Your task to perform on an android device: turn off notifications settings in the gmail app Image 0: 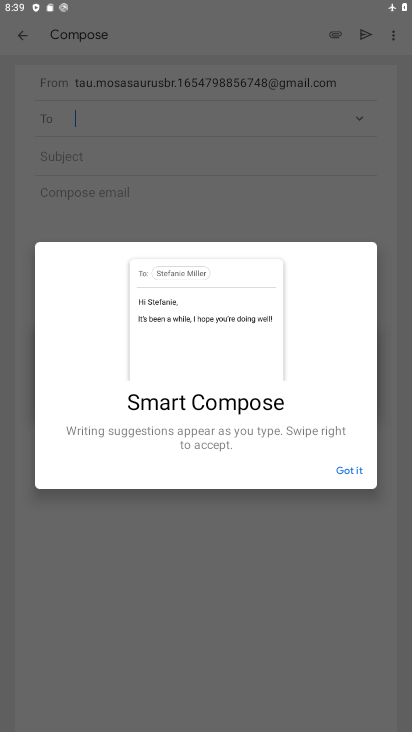
Step 0: press home button
Your task to perform on an android device: turn off notifications settings in the gmail app Image 1: 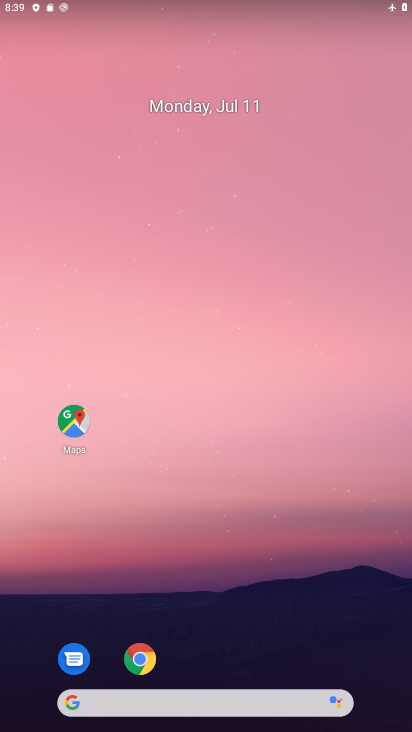
Step 1: drag from (191, 643) to (191, 179)
Your task to perform on an android device: turn off notifications settings in the gmail app Image 2: 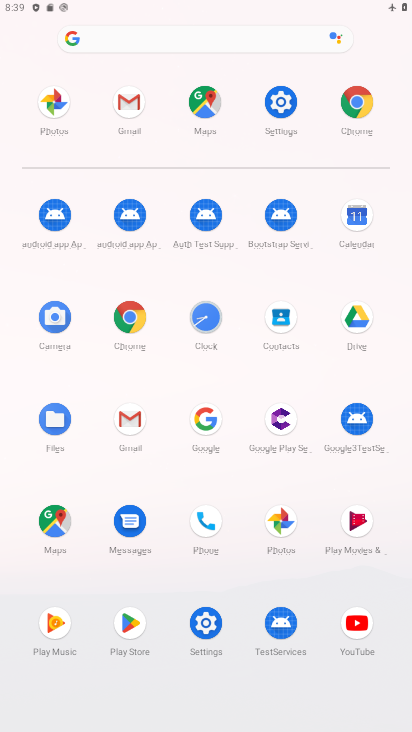
Step 2: click (271, 98)
Your task to perform on an android device: turn off notifications settings in the gmail app Image 3: 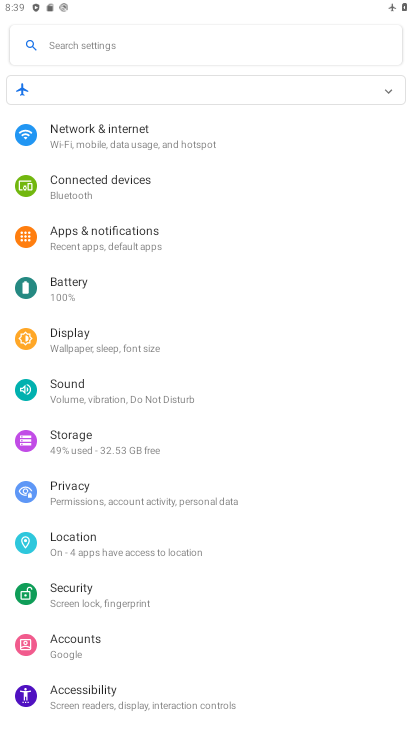
Step 3: press home button
Your task to perform on an android device: turn off notifications settings in the gmail app Image 4: 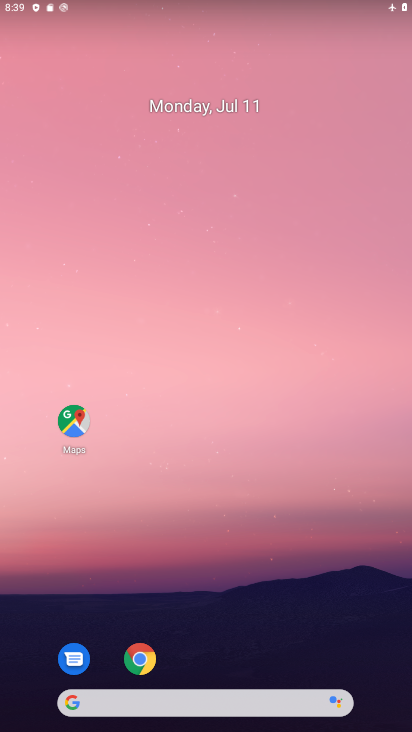
Step 4: drag from (219, 601) to (208, 81)
Your task to perform on an android device: turn off notifications settings in the gmail app Image 5: 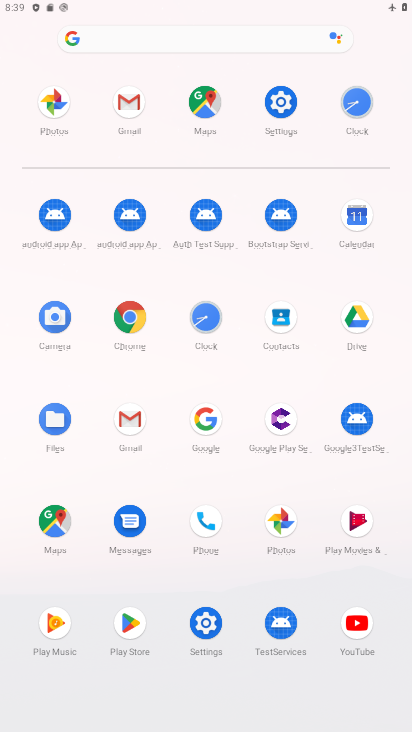
Step 5: click (113, 98)
Your task to perform on an android device: turn off notifications settings in the gmail app Image 6: 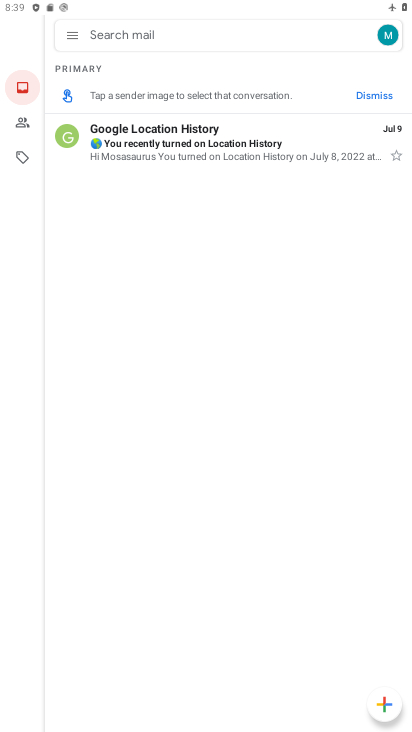
Step 6: click (70, 40)
Your task to perform on an android device: turn off notifications settings in the gmail app Image 7: 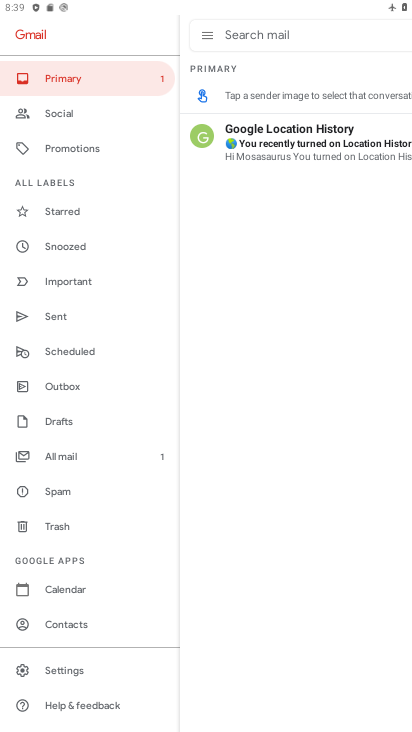
Step 7: click (96, 664)
Your task to perform on an android device: turn off notifications settings in the gmail app Image 8: 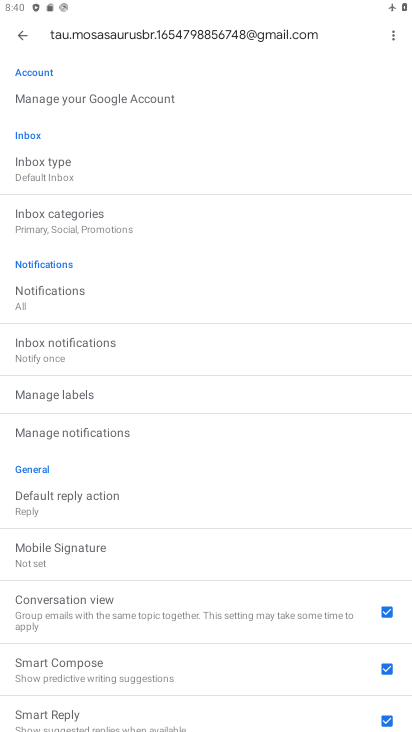
Step 8: click (114, 433)
Your task to perform on an android device: turn off notifications settings in the gmail app Image 9: 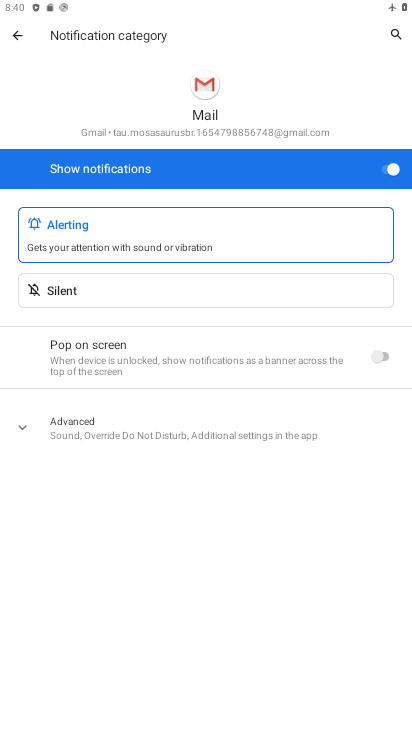
Step 9: click (385, 166)
Your task to perform on an android device: turn off notifications settings in the gmail app Image 10: 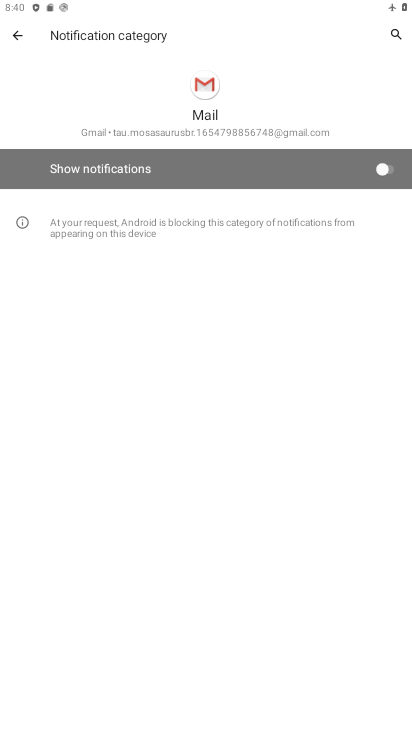
Step 10: task complete